Your task to perform on an android device: Show me popular videos on Youtube Image 0: 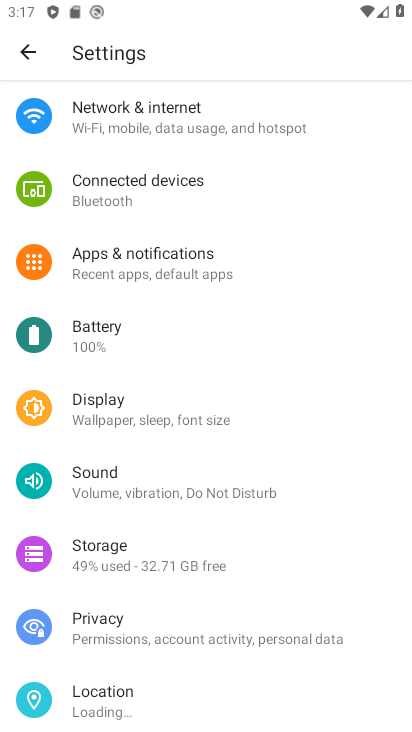
Step 0: press back button
Your task to perform on an android device: Show me popular videos on Youtube Image 1: 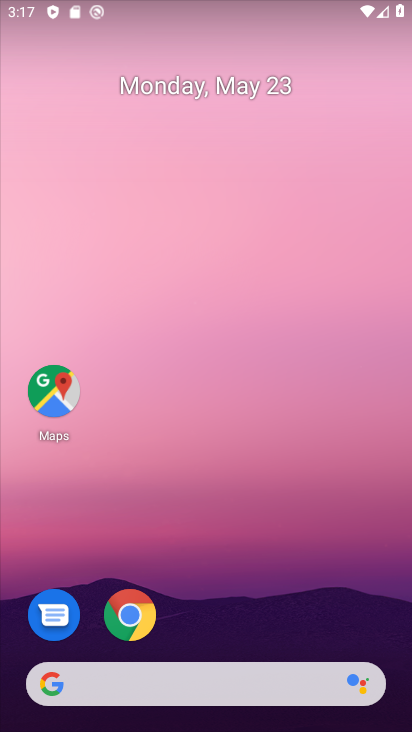
Step 1: drag from (272, 602) to (207, 93)
Your task to perform on an android device: Show me popular videos on Youtube Image 2: 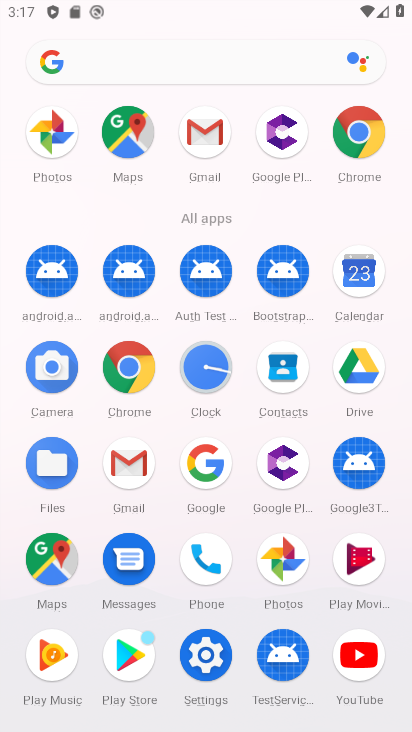
Step 2: drag from (15, 579) to (25, 214)
Your task to perform on an android device: Show me popular videos on Youtube Image 3: 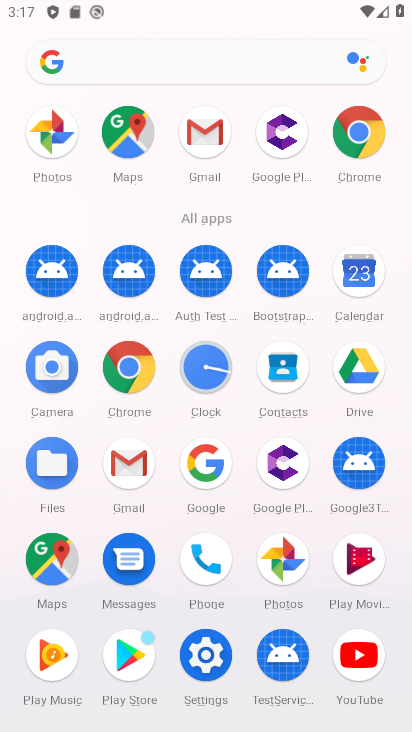
Step 3: click (361, 655)
Your task to perform on an android device: Show me popular videos on Youtube Image 4: 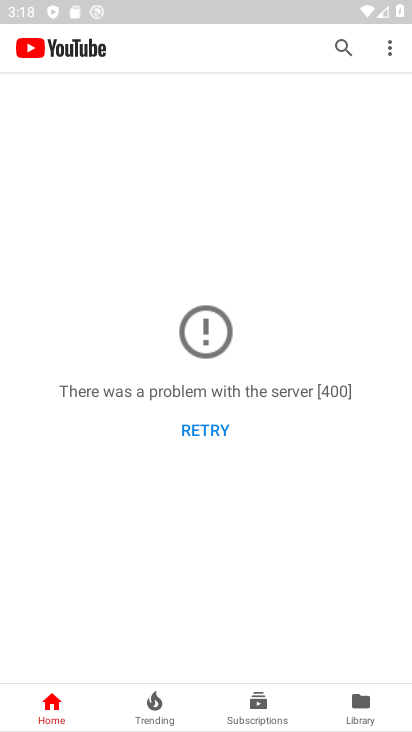
Step 4: task complete